Your task to perform on an android device: read, delete, or share a saved page in the chrome app Image 0: 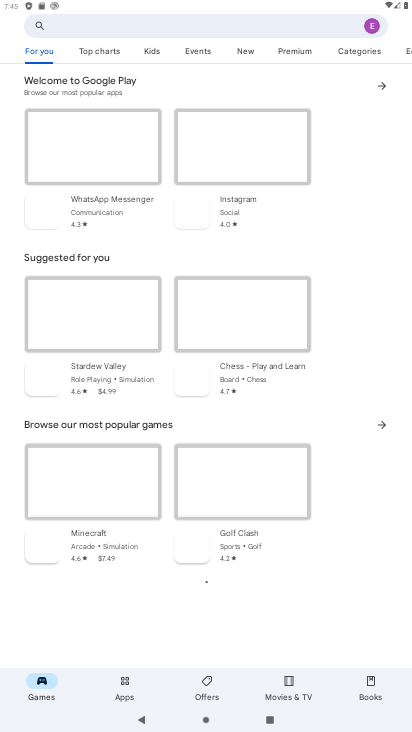
Step 0: press home button
Your task to perform on an android device: read, delete, or share a saved page in the chrome app Image 1: 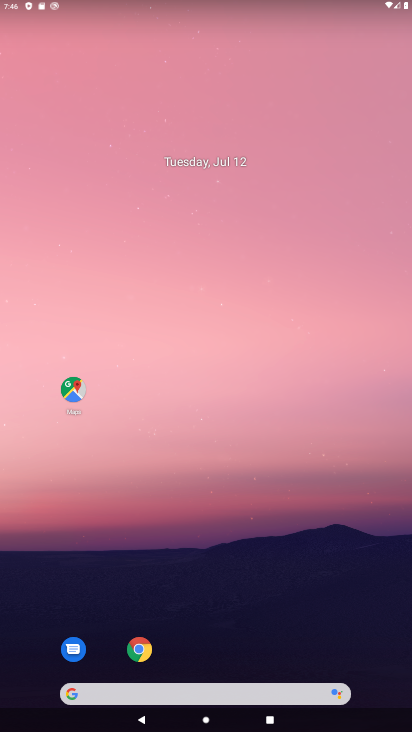
Step 1: click (140, 647)
Your task to perform on an android device: read, delete, or share a saved page in the chrome app Image 2: 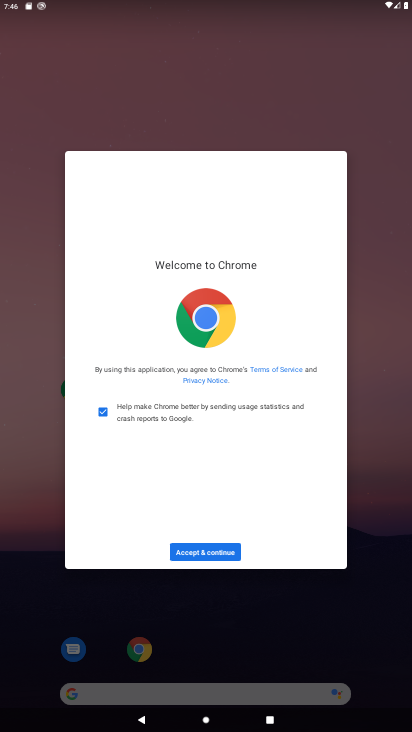
Step 2: click (209, 546)
Your task to perform on an android device: read, delete, or share a saved page in the chrome app Image 3: 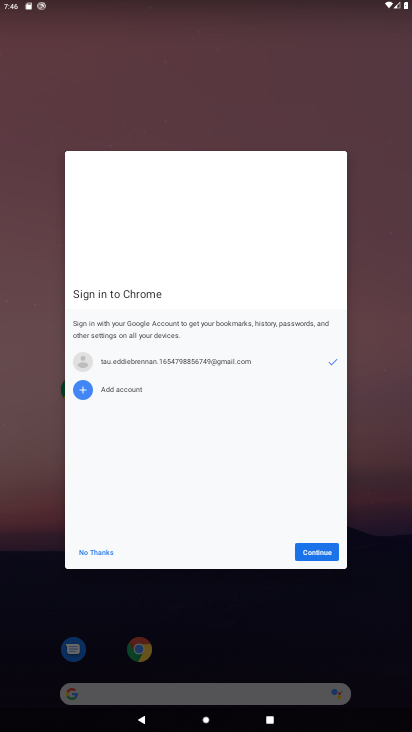
Step 3: click (303, 555)
Your task to perform on an android device: read, delete, or share a saved page in the chrome app Image 4: 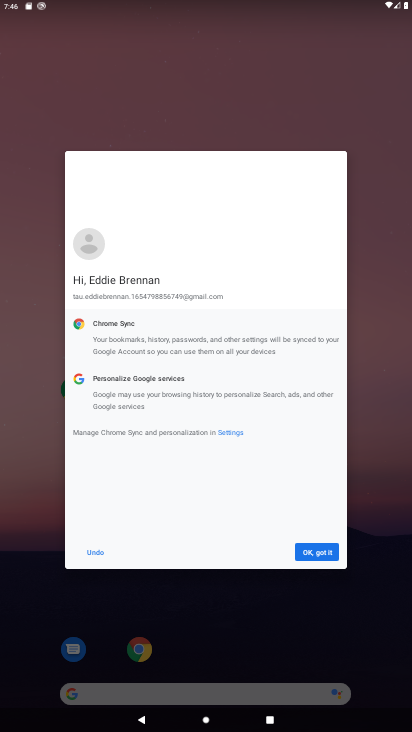
Step 4: click (303, 555)
Your task to perform on an android device: read, delete, or share a saved page in the chrome app Image 5: 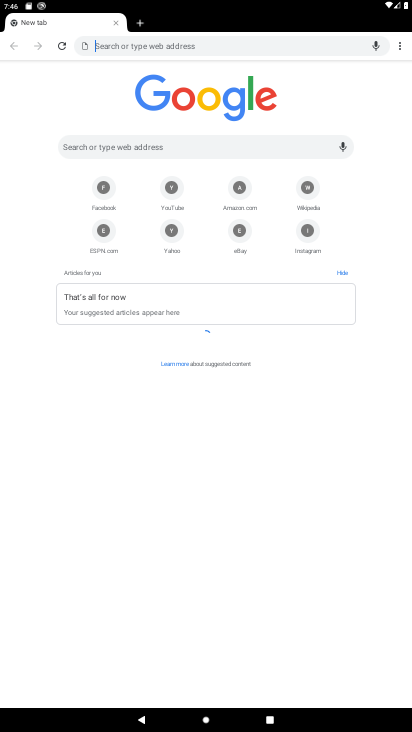
Step 5: click (394, 47)
Your task to perform on an android device: read, delete, or share a saved page in the chrome app Image 6: 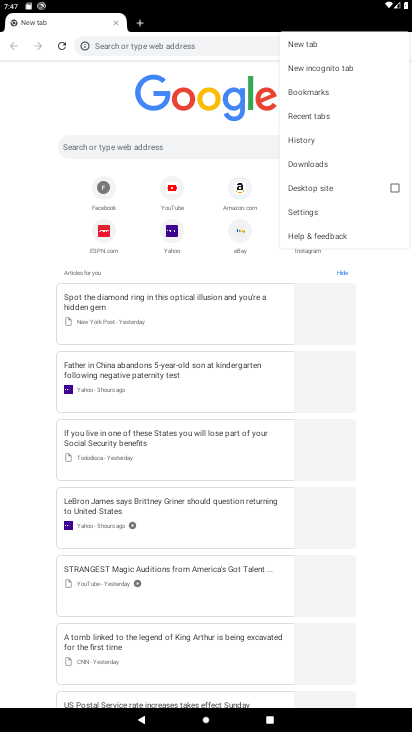
Step 6: click (348, 161)
Your task to perform on an android device: read, delete, or share a saved page in the chrome app Image 7: 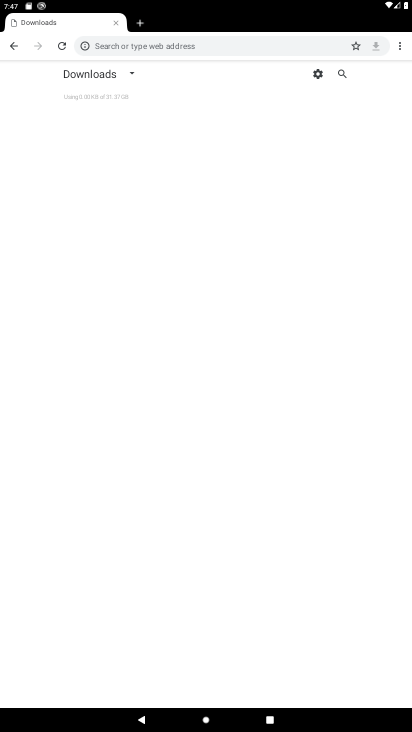
Step 7: click (125, 66)
Your task to perform on an android device: read, delete, or share a saved page in the chrome app Image 8: 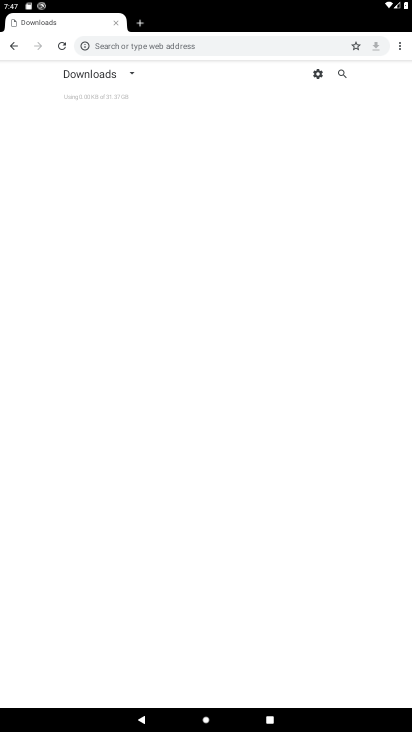
Step 8: click (132, 71)
Your task to perform on an android device: read, delete, or share a saved page in the chrome app Image 9: 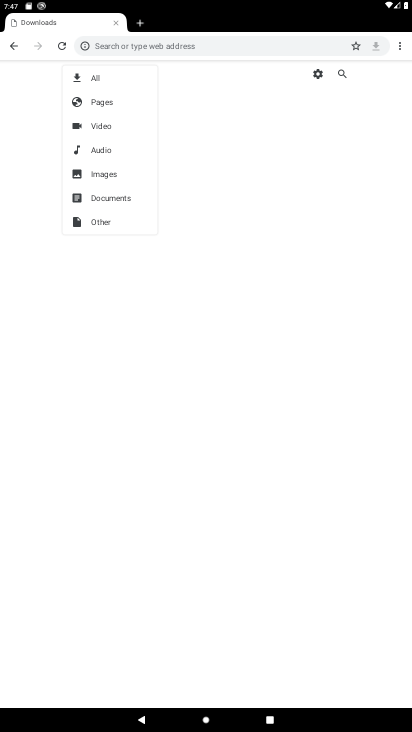
Step 9: click (124, 105)
Your task to perform on an android device: read, delete, or share a saved page in the chrome app Image 10: 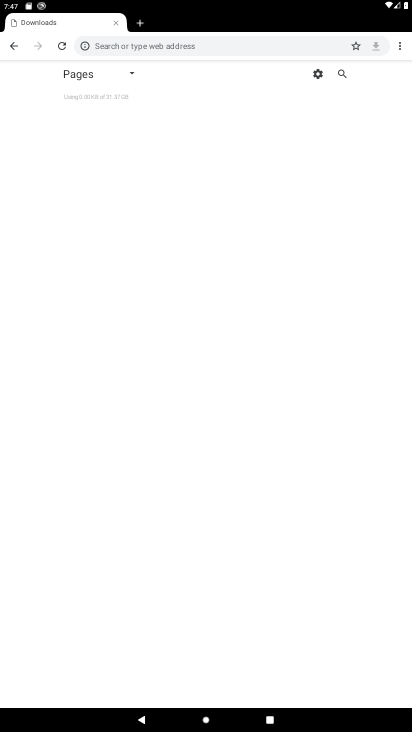
Step 10: task complete